Your task to perform on an android device: check battery use Image 0: 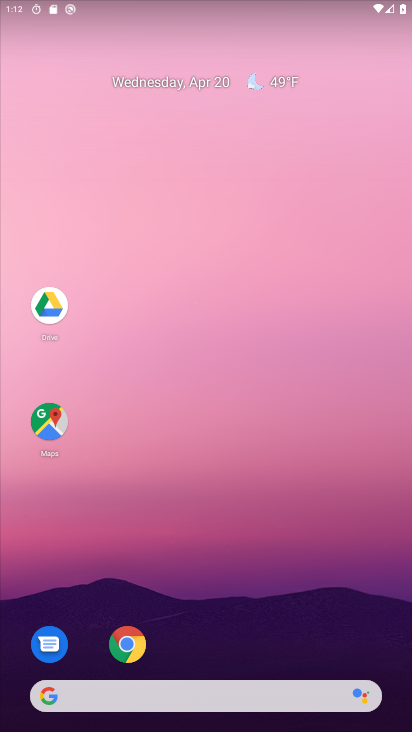
Step 0: drag from (249, 601) to (276, 134)
Your task to perform on an android device: check battery use Image 1: 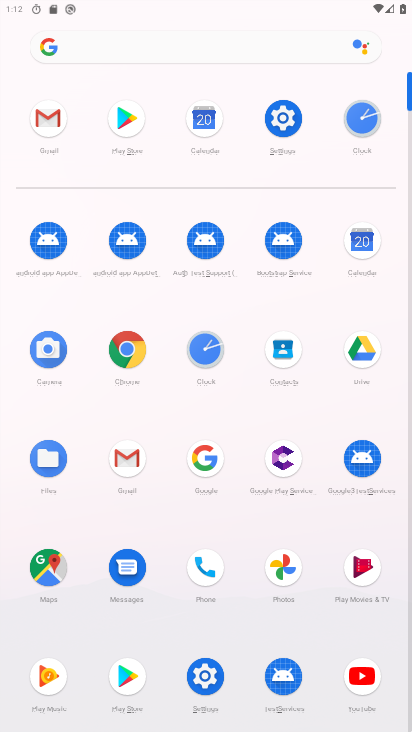
Step 1: click (204, 673)
Your task to perform on an android device: check battery use Image 2: 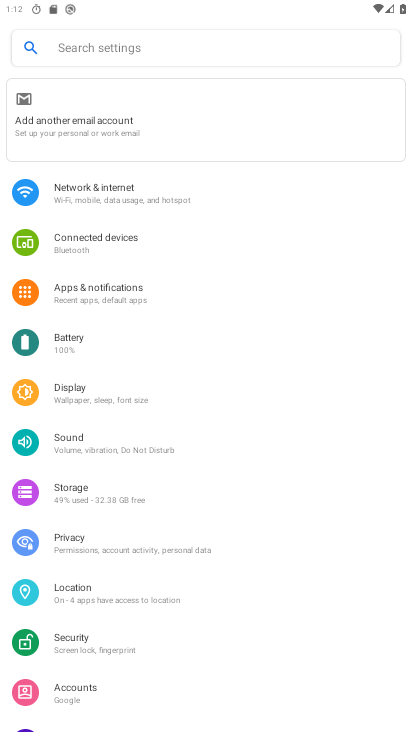
Step 2: click (136, 344)
Your task to perform on an android device: check battery use Image 3: 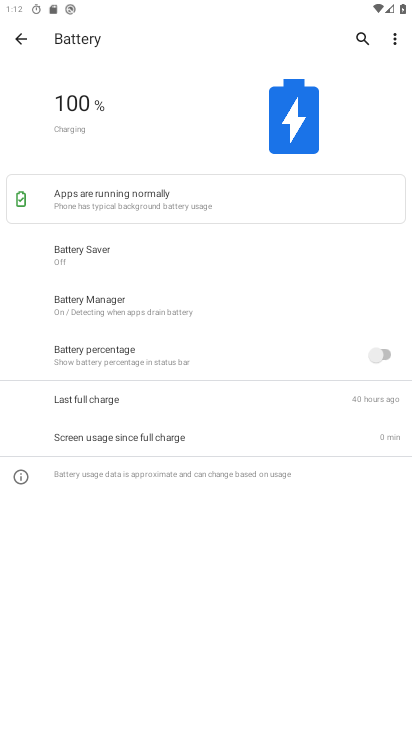
Step 3: click (391, 30)
Your task to perform on an android device: check battery use Image 4: 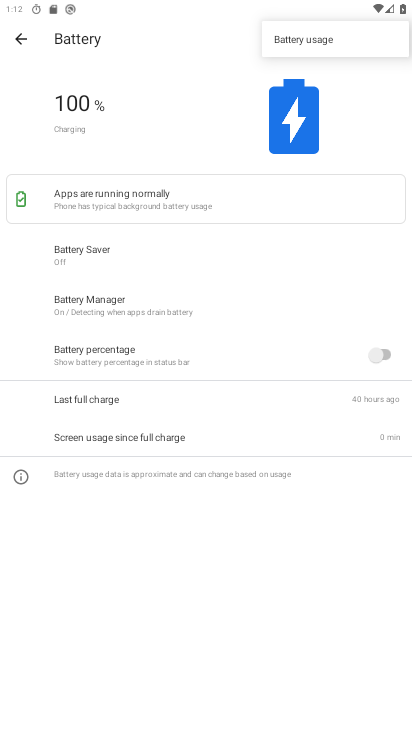
Step 4: click (318, 37)
Your task to perform on an android device: check battery use Image 5: 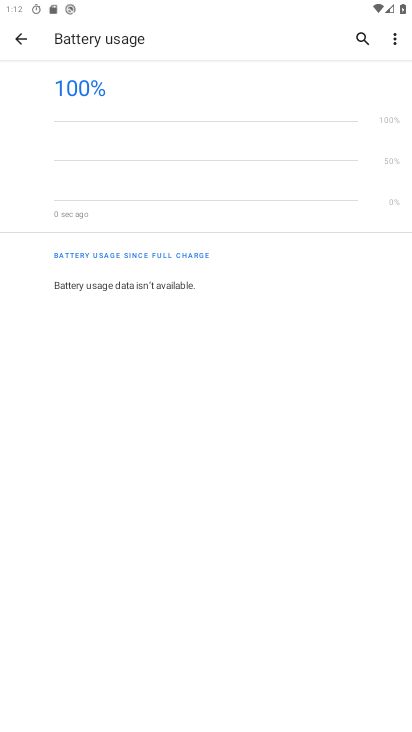
Step 5: task complete